Your task to perform on an android device: Search for Italian restaurants on Maps Image 0: 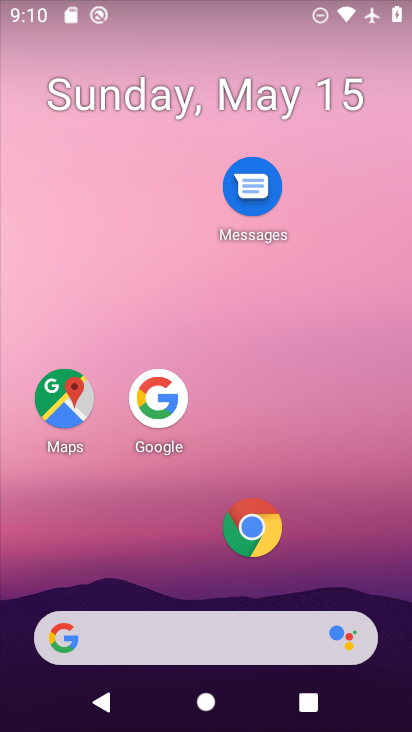
Step 0: click (61, 406)
Your task to perform on an android device: Search for Italian restaurants on Maps Image 1: 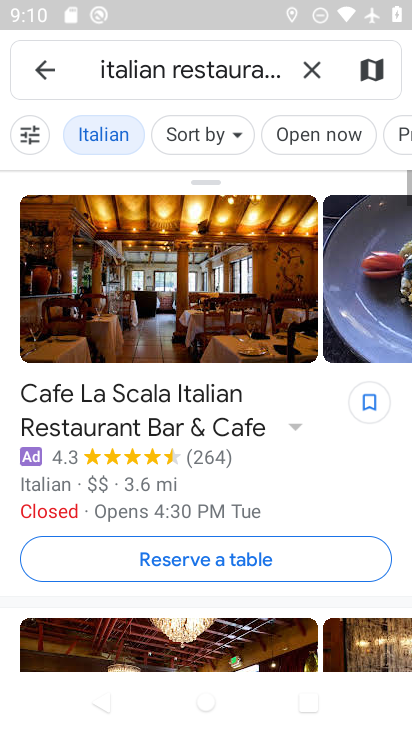
Step 1: task complete